Your task to perform on an android device: remove spam from my inbox in the gmail app Image 0: 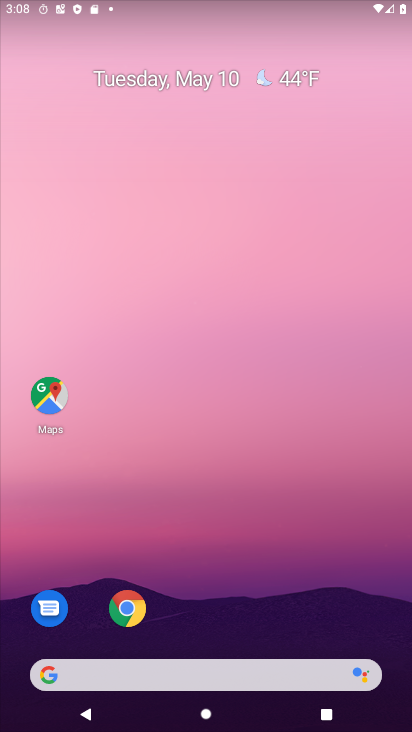
Step 0: drag from (318, 588) to (314, 67)
Your task to perform on an android device: remove spam from my inbox in the gmail app Image 1: 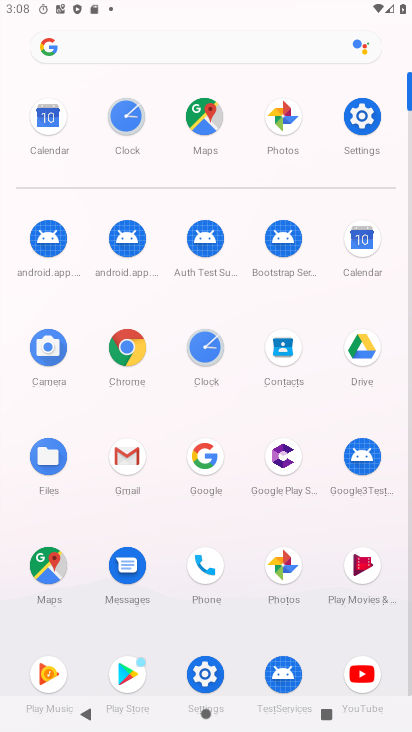
Step 1: click (134, 458)
Your task to perform on an android device: remove spam from my inbox in the gmail app Image 2: 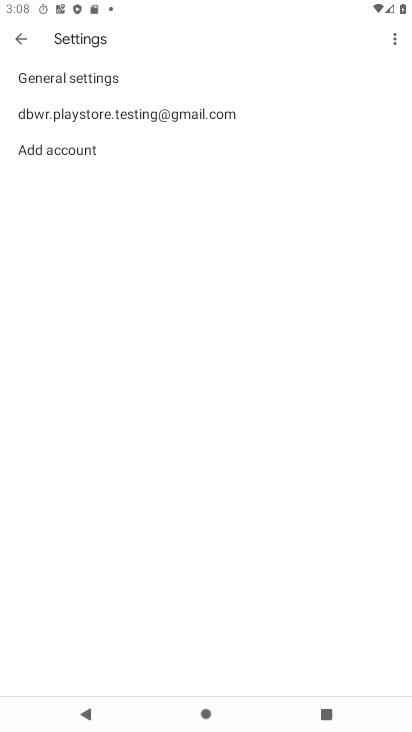
Step 2: click (29, 46)
Your task to perform on an android device: remove spam from my inbox in the gmail app Image 3: 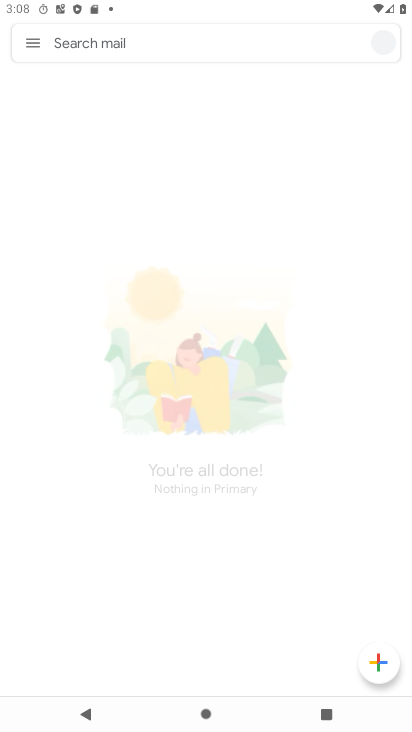
Step 3: click (29, 46)
Your task to perform on an android device: remove spam from my inbox in the gmail app Image 4: 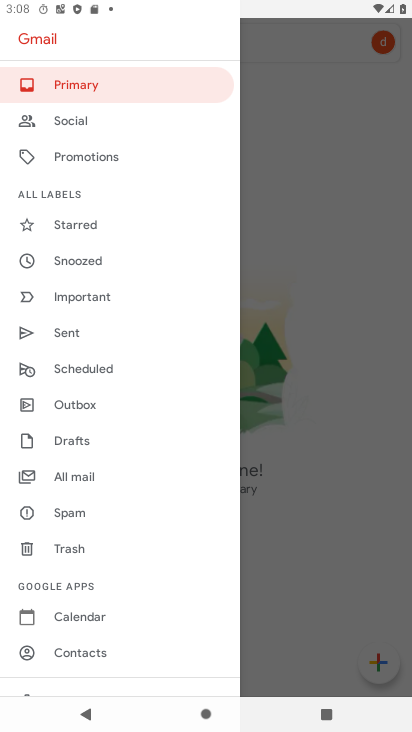
Step 4: click (89, 511)
Your task to perform on an android device: remove spam from my inbox in the gmail app Image 5: 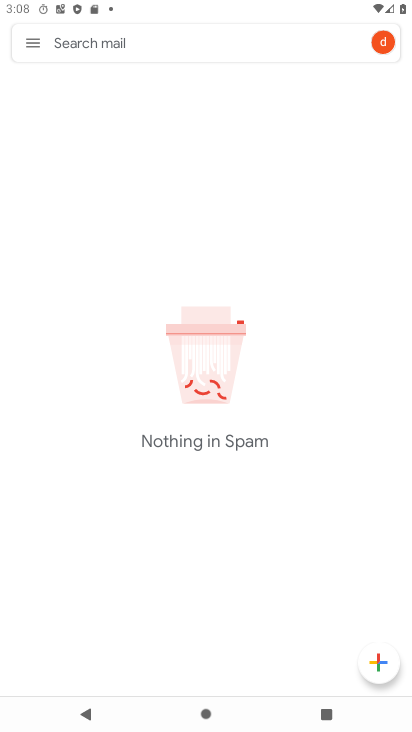
Step 5: task complete